Your task to perform on an android device: Open CNN.com Image 0: 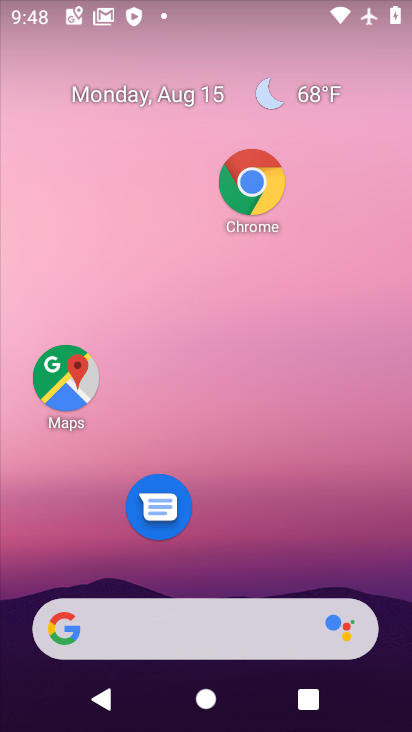
Step 0: click (225, 187)
Your task to perform on an android device: Open CNN.com Image 1: 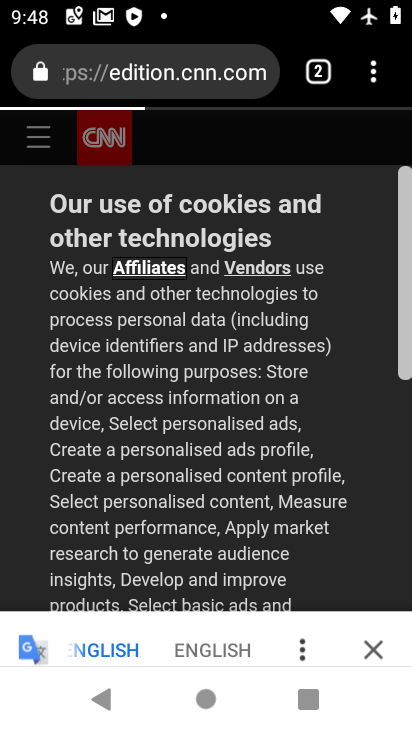
Step 1: click (193, 53)
Your task to perform on an android device: Open CNN.com Image 2: 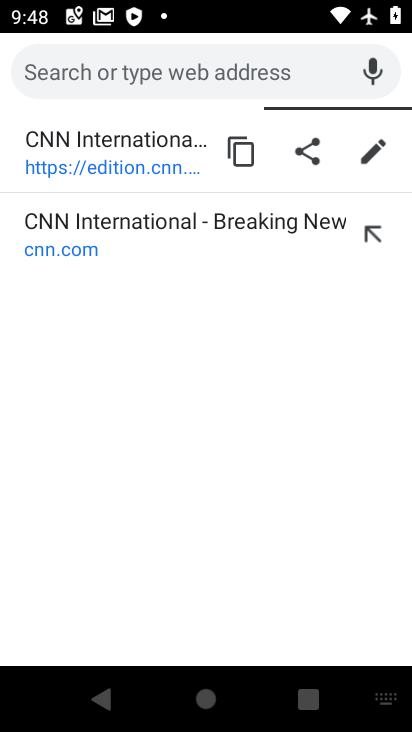
Step 2: task complete